Your task to perform on an android device: toggle wifi Image 0: 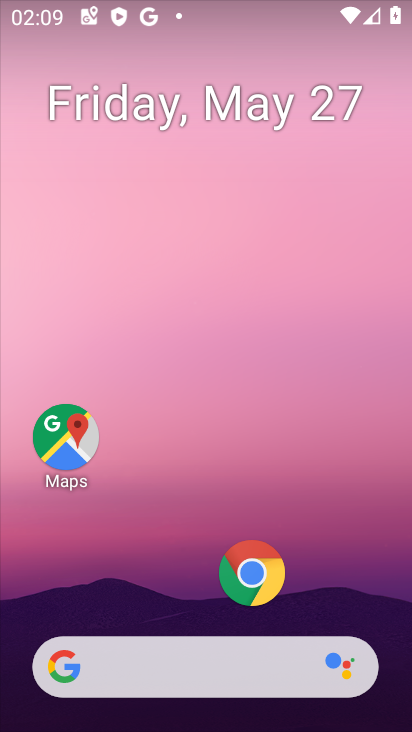
Step 0: drag from (190, 618) to (140, 116)
Your task to perform on an android device: toggle wifi Image 1: 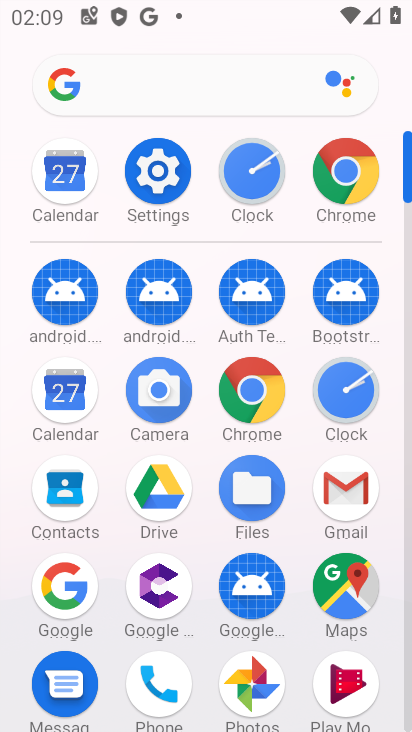
Step 1: click (166, 168)
Your task to perform on an android device: toggle wifi Image 2: 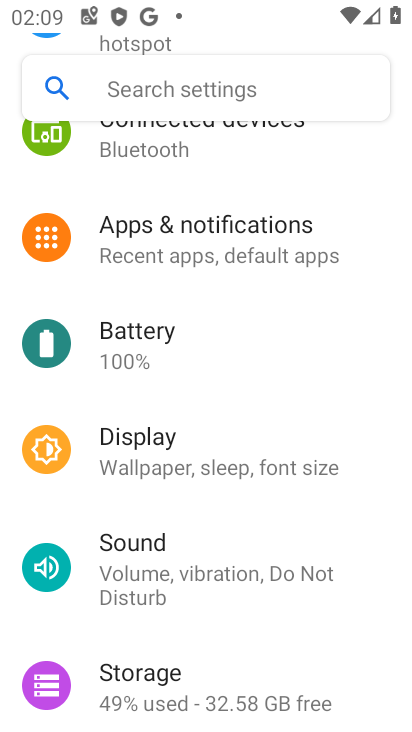
Step 2: drag from (175, 165) to (133, 573)
Your task to perform on an android device: toggle wifi Image 3: 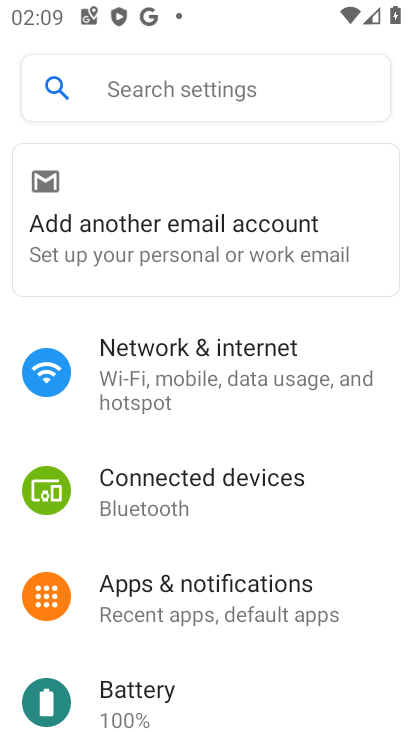
Step 3: click (207, 383)
Your task to perform on an android device: toggle wifi Image 4: 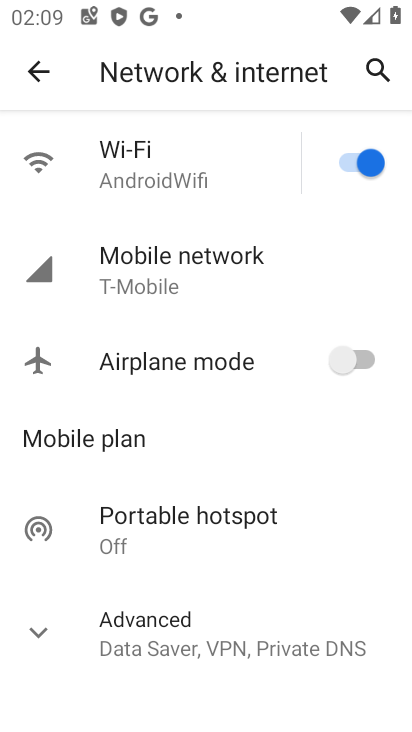
Step 4: click (336, 166)
Your task to perform on an android device: toggle wifi Image 5: 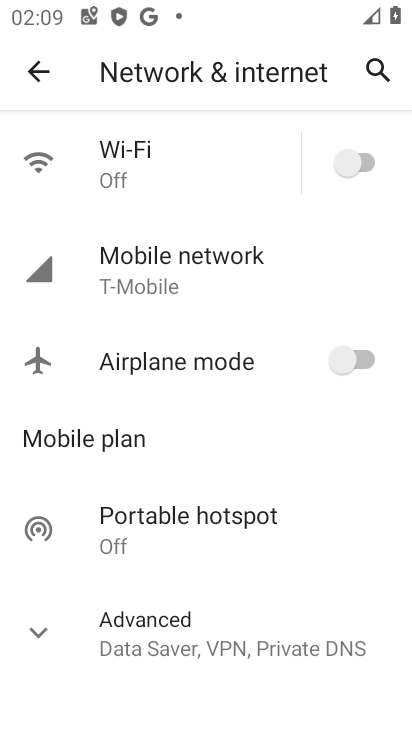
Step 5: task complete